Your task to perform on an android device: Open Google Image 0: 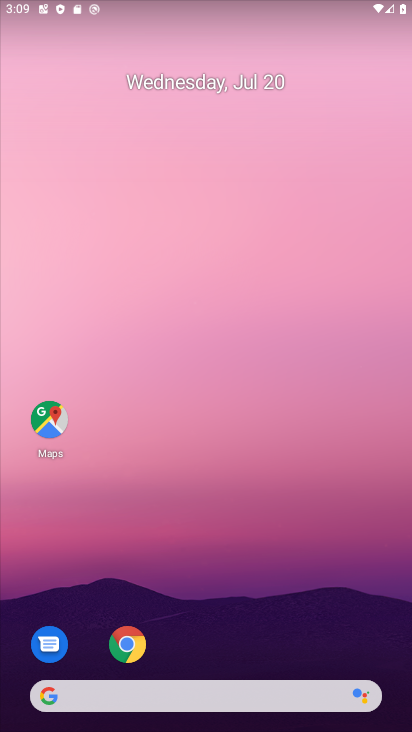
Step 0: drag from (152, 673) to (93, 325)
Your task to perform on an android device: Open Google Image 1: 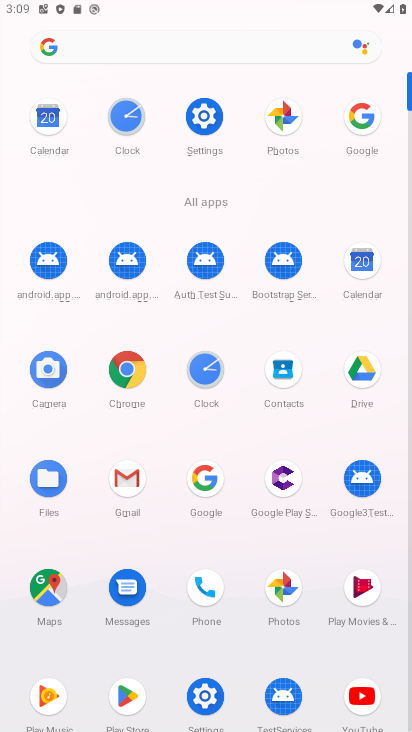
Step 1: click (200, 478)
Your task to perform on an android device: Open Google Image 2: 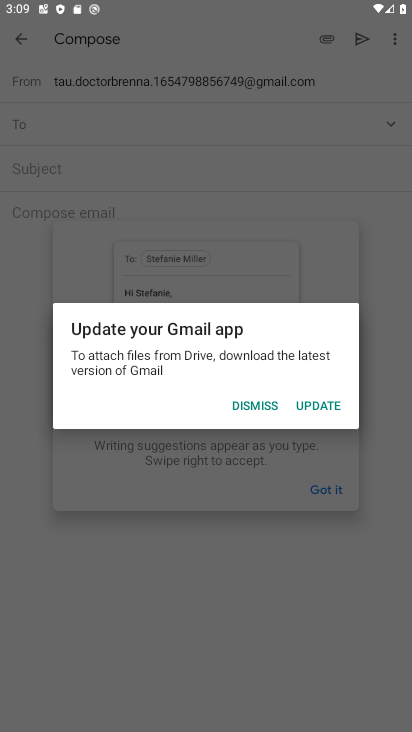
Step 2: press home button
Your task to perform on an android device: Open Google Image 3: 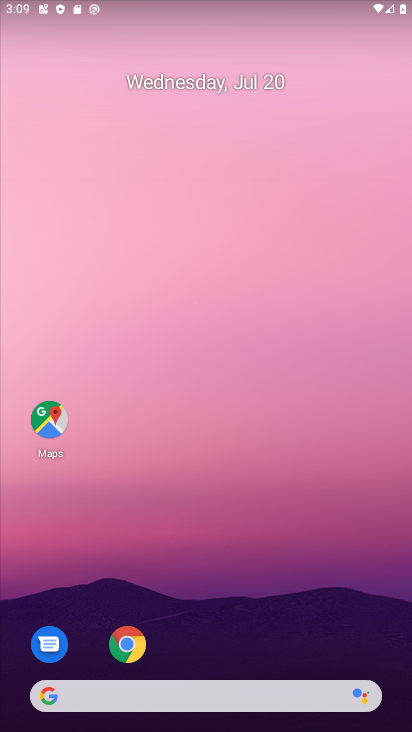
Step 3: drag from (139, 675) to (132, 396)
Your task to perform on an android device: Open Google Image 4: 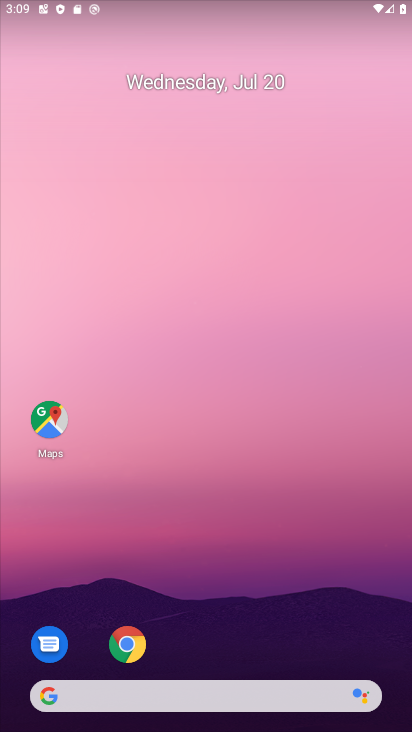
Step 4: drag from (188, 689) to (133, 307)
Your task to perform on an android device: Open Google Image 5: 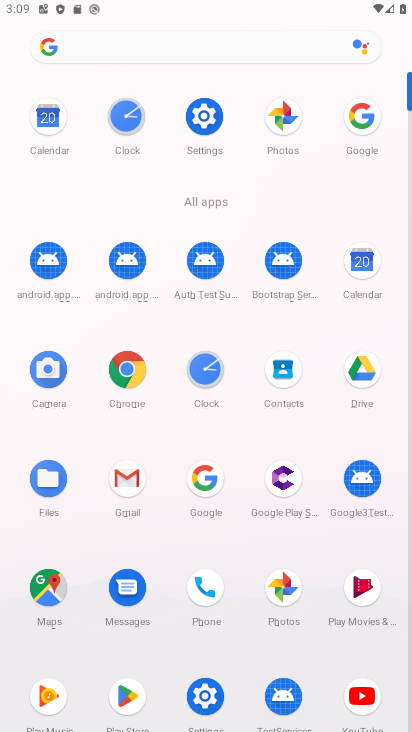
Step 5: click (201, 489)
Your task to perform on an android device: Open Google Image 6: 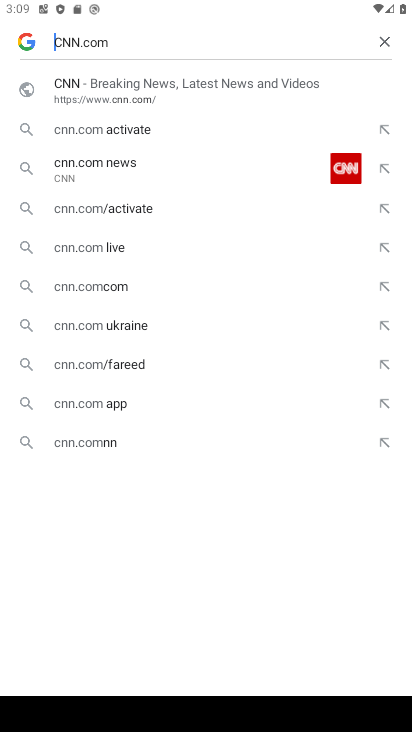
Step 6: click (389, 39)
Your task to perform on an android device: Open Google Image 7: 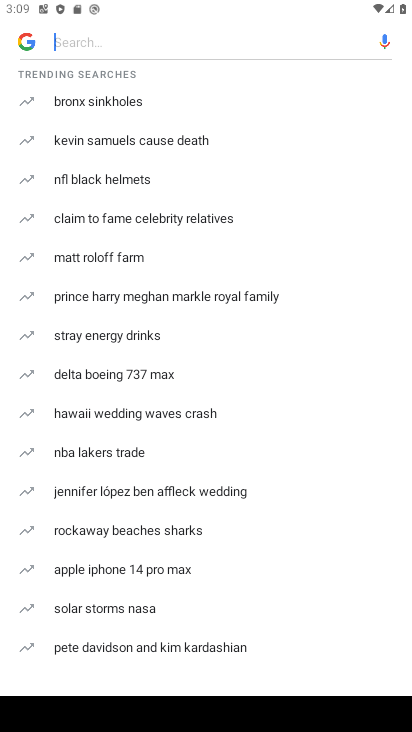
Step 7: task complete